Your task to perform on an android device: What's on my calendar tomorrow? Image 0: 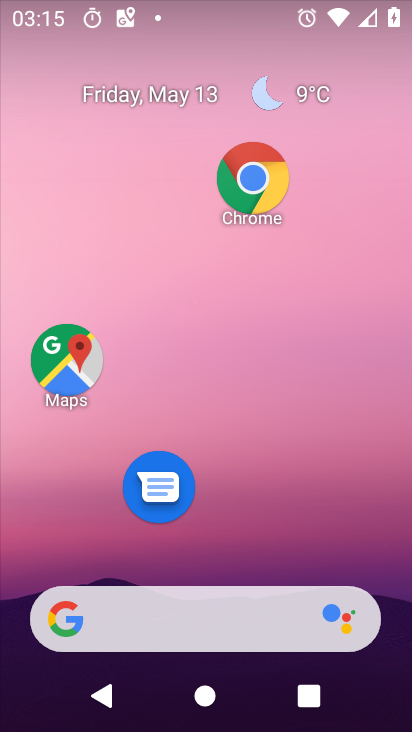
Step 0: drag from (312, 539) to (315, 104)
Your task to perform on an android device: What's on my calendar tomorrow? Image 1: 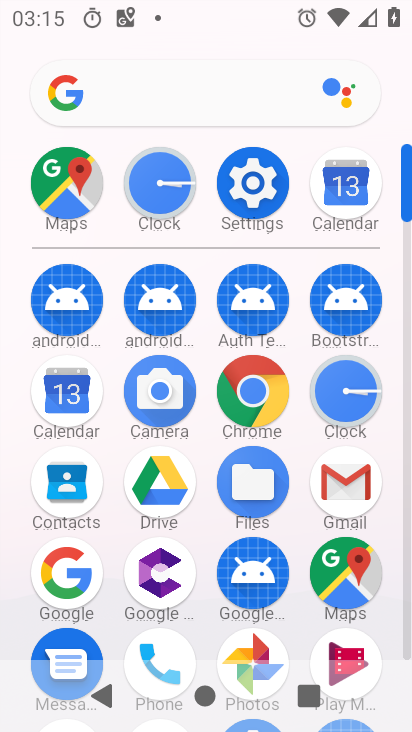
Step 1: click (68, 387)
Your task to perform on an android device: What's on my calendar tomorrow? Image 2: 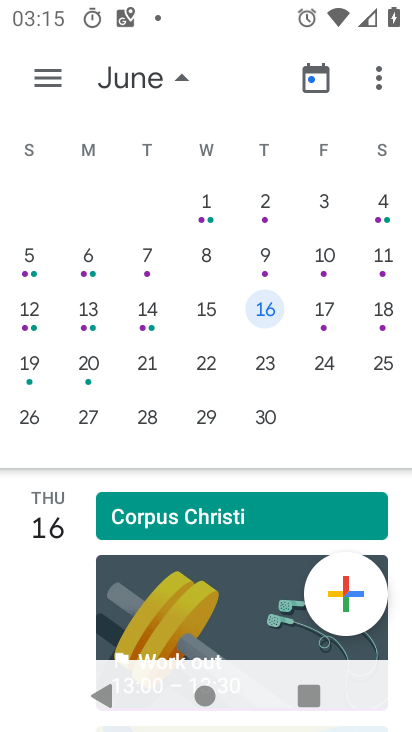
Step 2: drag from (6, 414) to (247, 399)
Your task to perform on an android device: What's on my calendar tomorrow? Image 3: 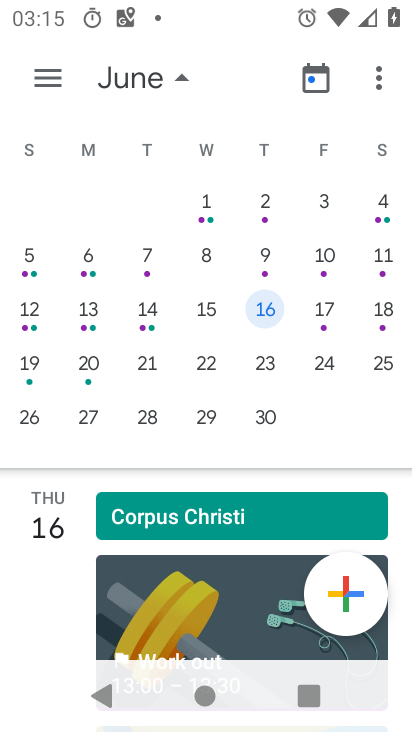
Step 3: drag from (46, 435) to (410, 431)
Your task to perform on an android device: What's on my calendar tomorrow? Image 4: 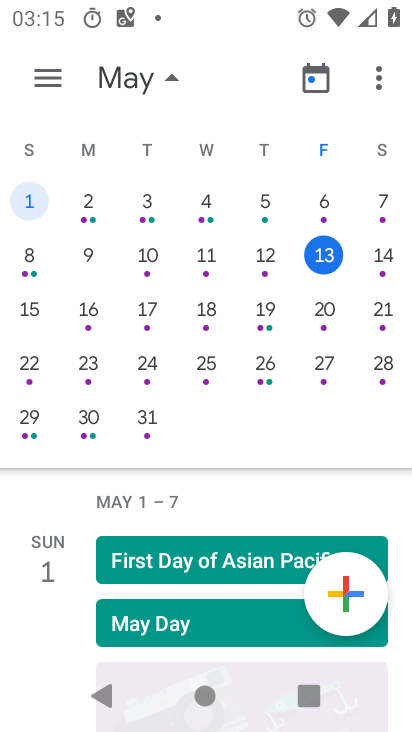
Step 4: click (379, 262)
Your task to perform on an android device: What's on my calendar tomorrow? Image 5: 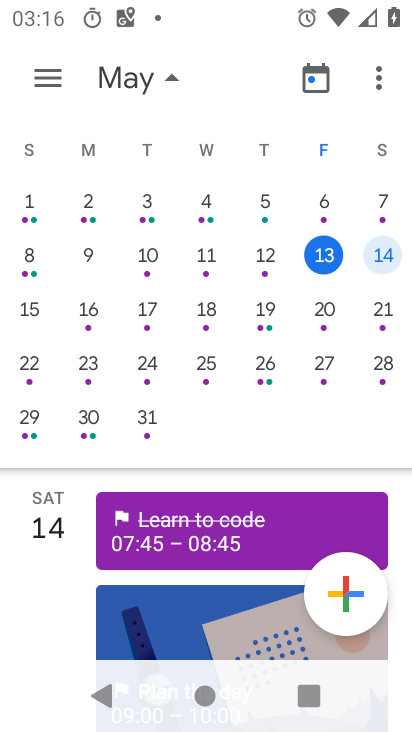
Step 5: task complete